Your task to perform on an android device: toggle translation in the chrome app Image 0: 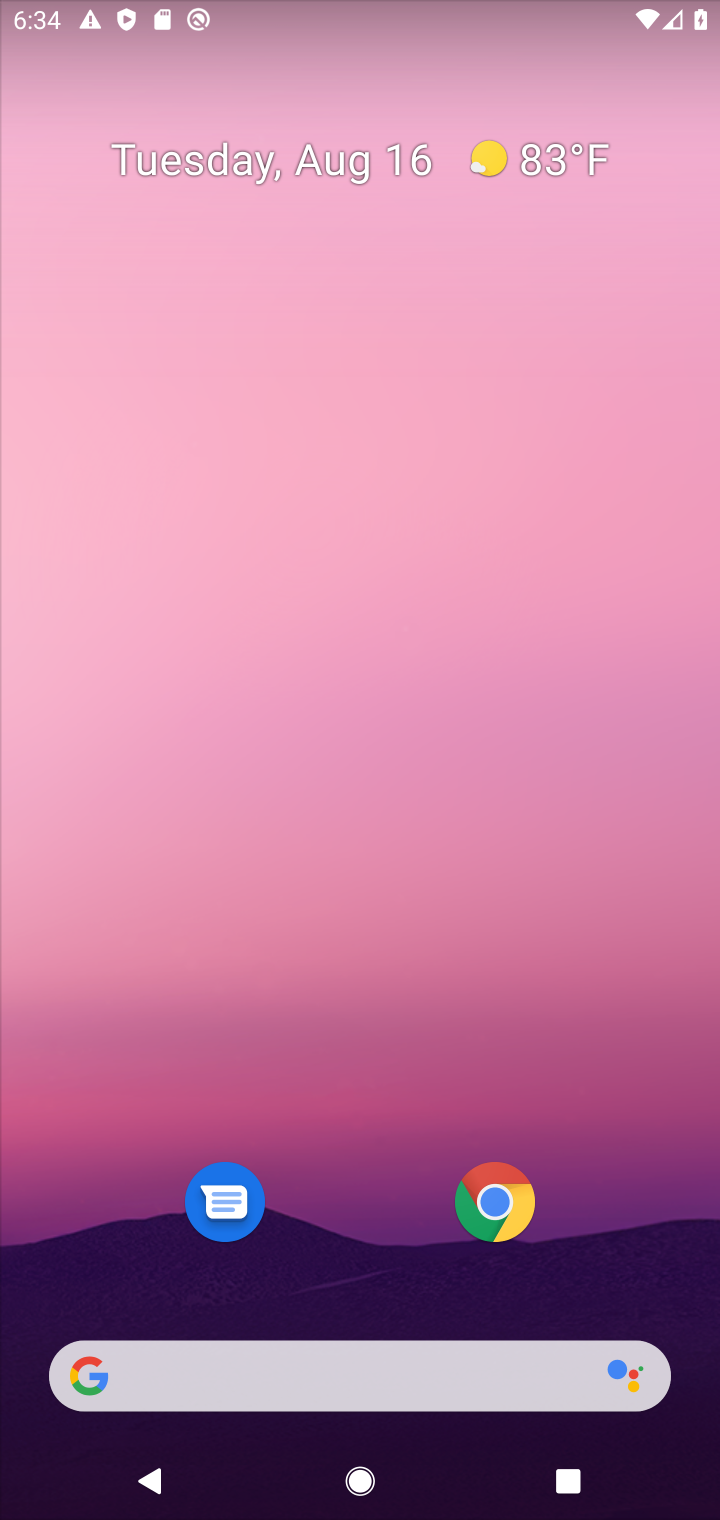
Step 0: drag from (663, 1277) to (321, 4)
Your task to perform on an android device: toggle translation in the chrome app Image 1: 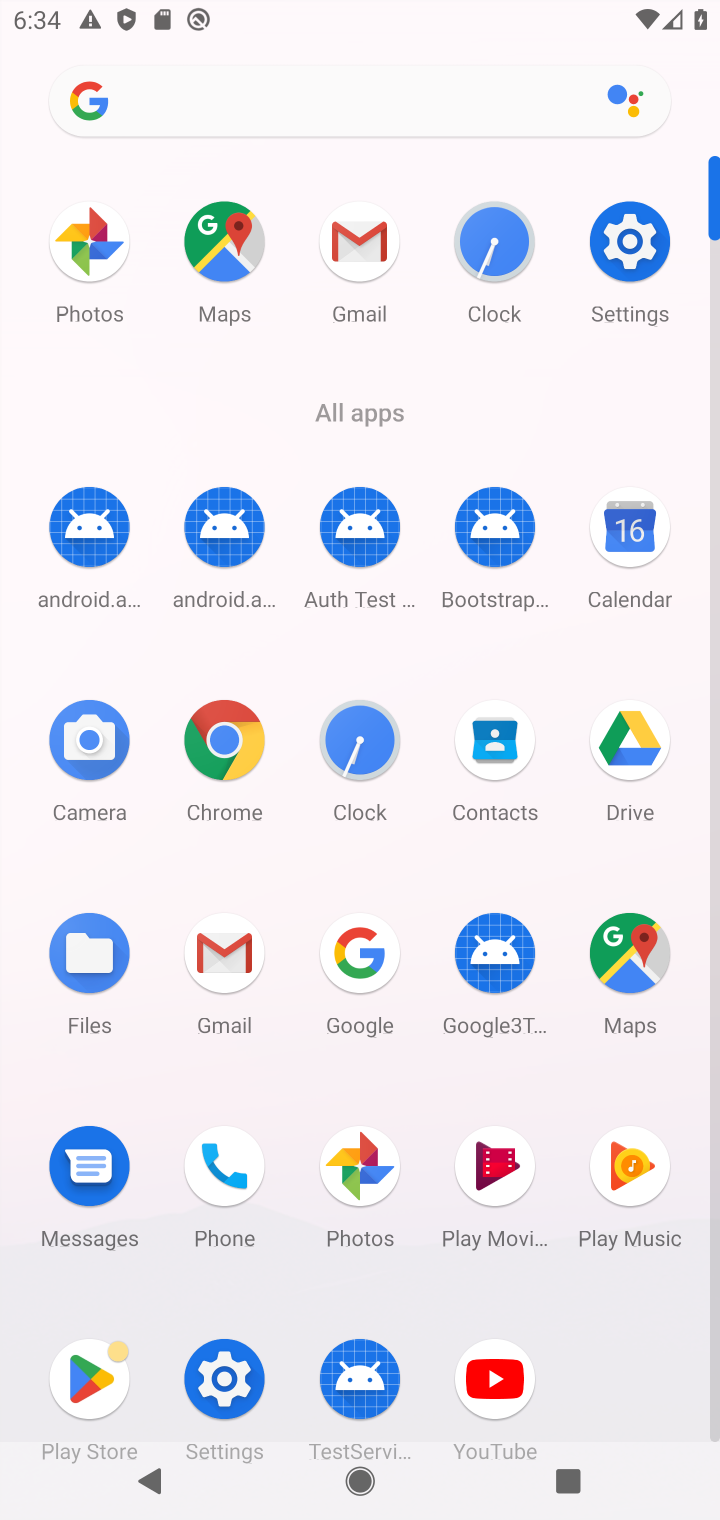
Step 1: click (210, 742)
Your task to perform on an android device: toggle translation in the chrome app Image 2: 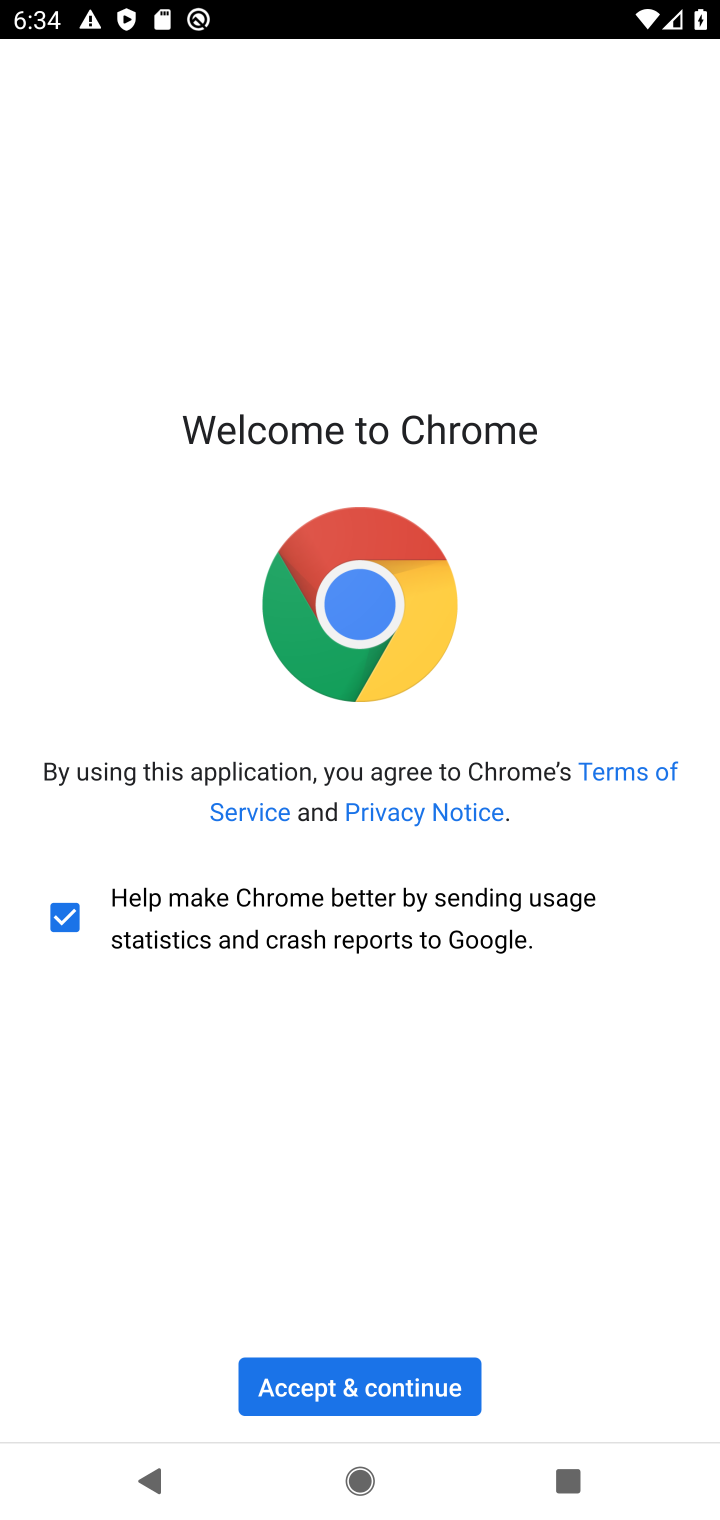
Step 2: click (419, 1386)
Your task to perform on an android device: toggle translation in the chrome app Image 3: 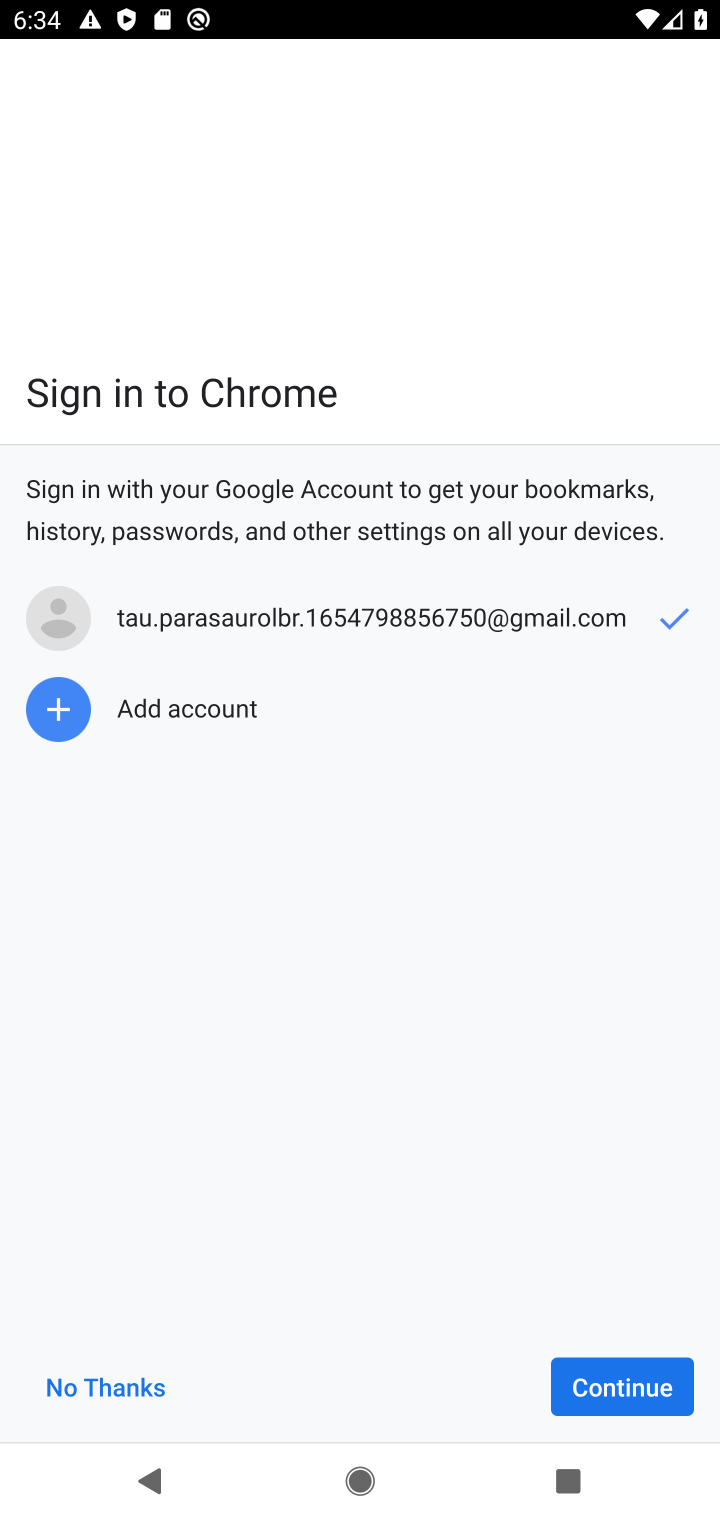
Step 3: click (619, 1379)
Your task to perform on an android device: toggle translation in the chrome app Image 4: 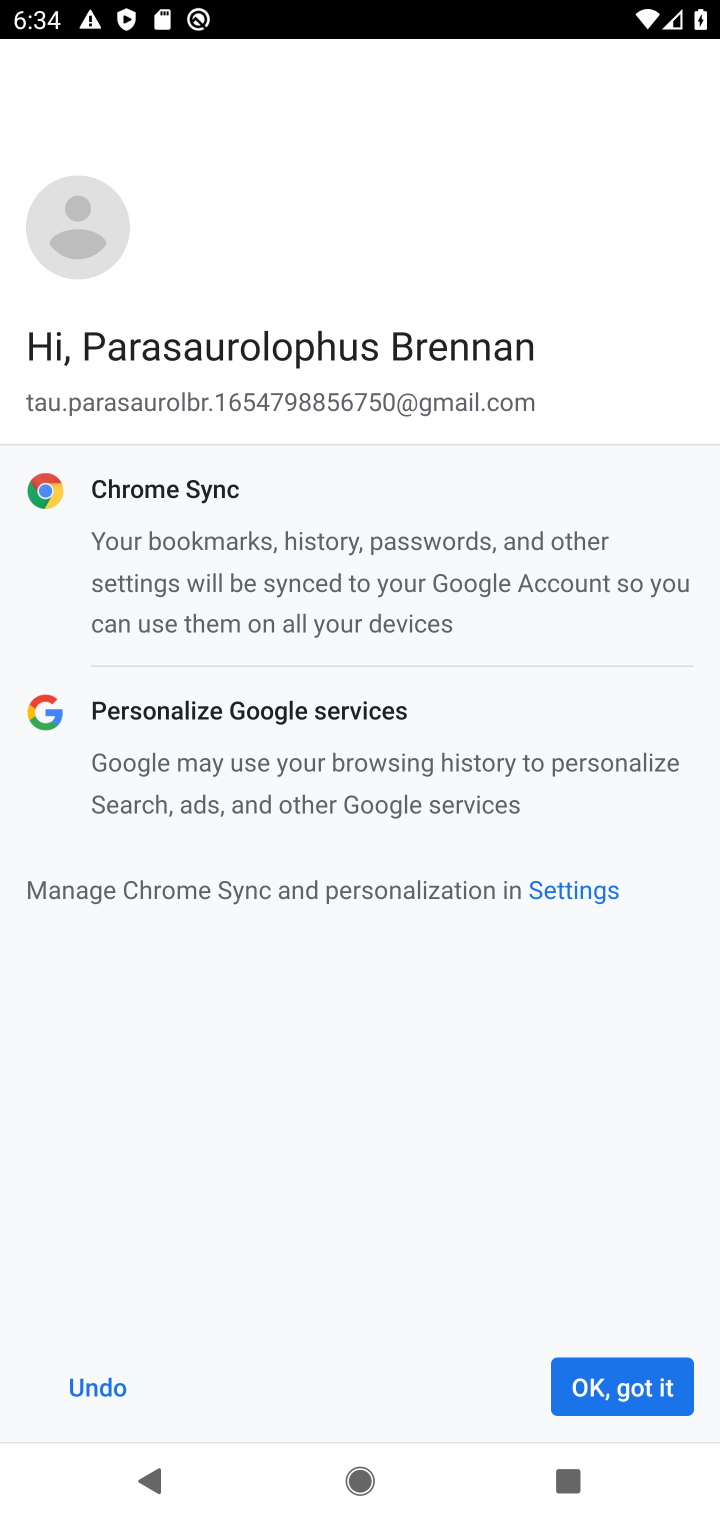
Step 4: click (619, 1379)
Your task to perform on an android device: toggle translation in the chrome app Image 5: 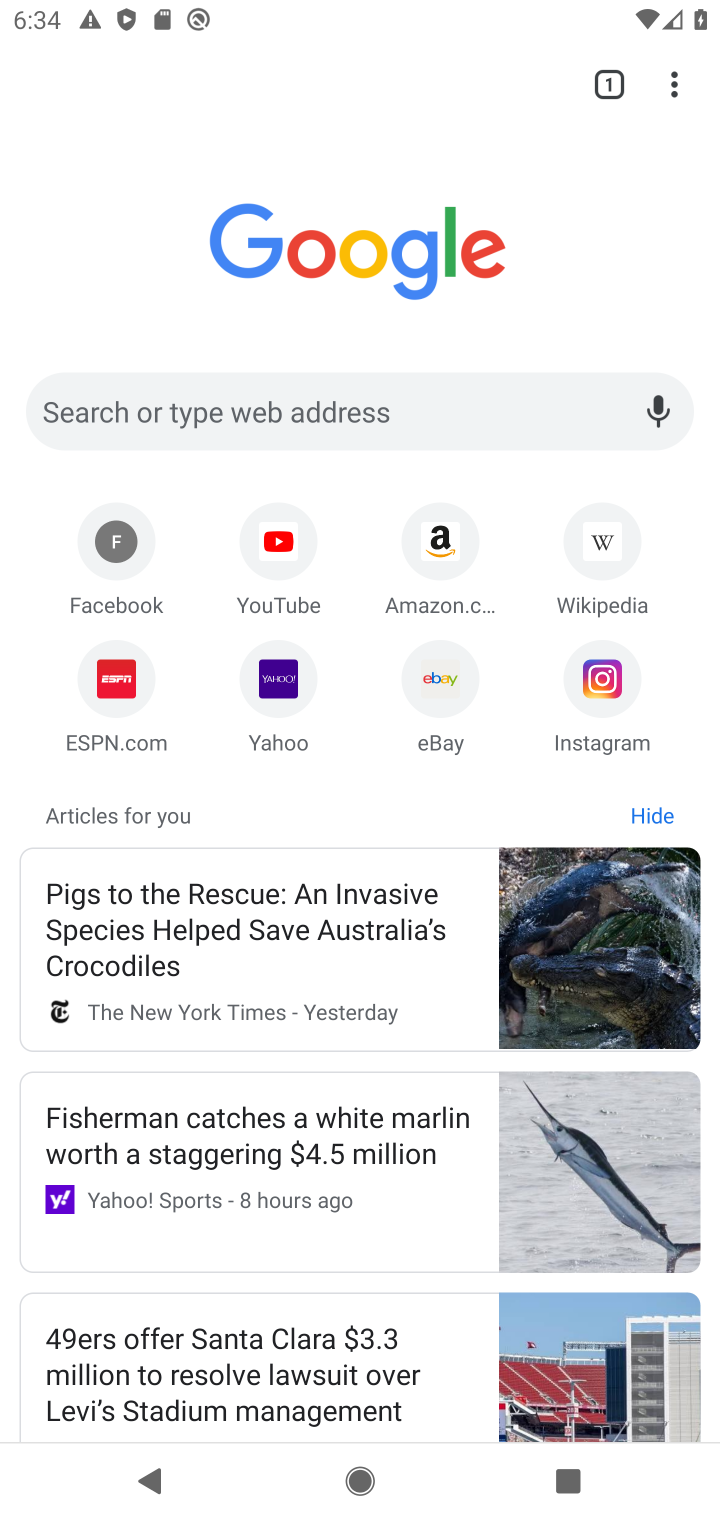
Step 5: click (674, 72)
Your task to perform on an android device: toggle translation in the chrome app Image 6: 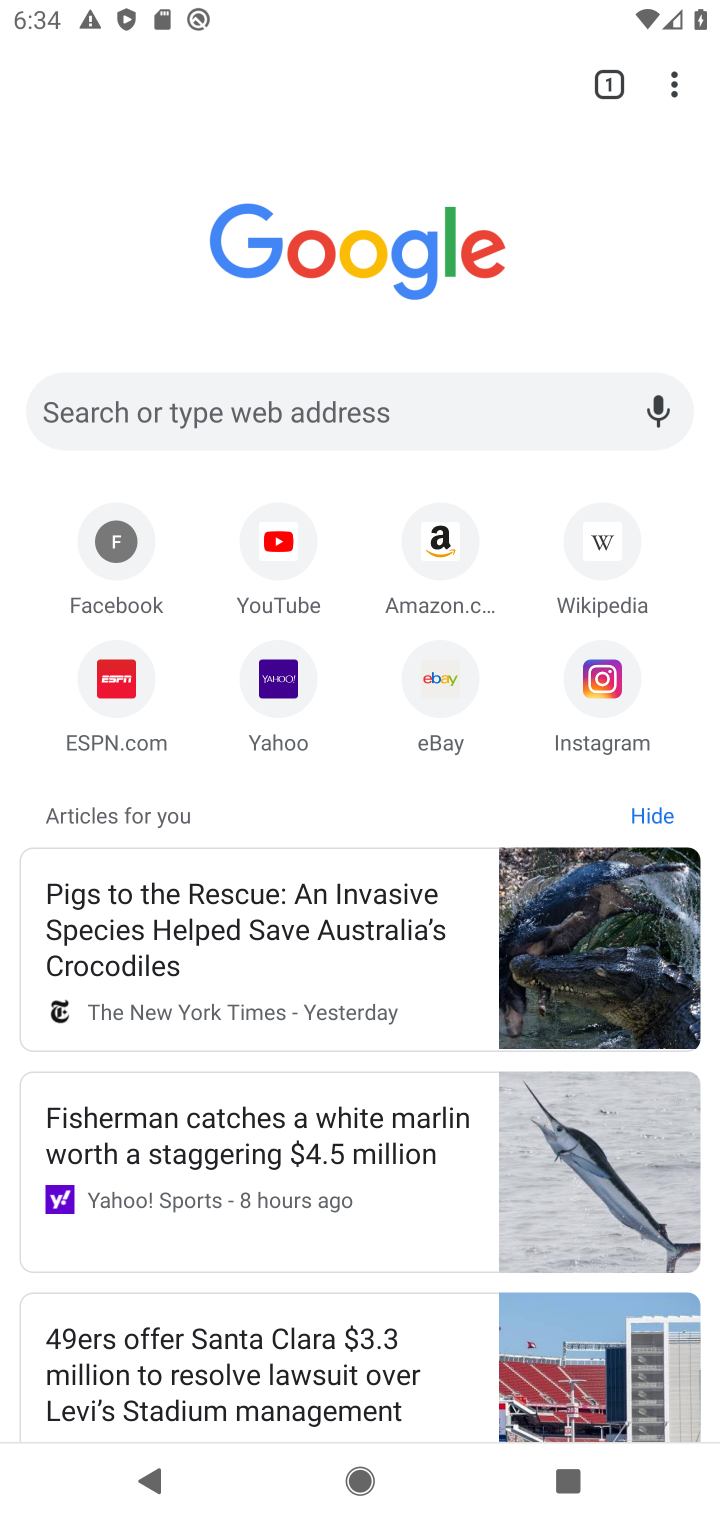
Step 6: click (680, 72)
Your task to perform on an android device: toggle translation in the chrome app Image 7: 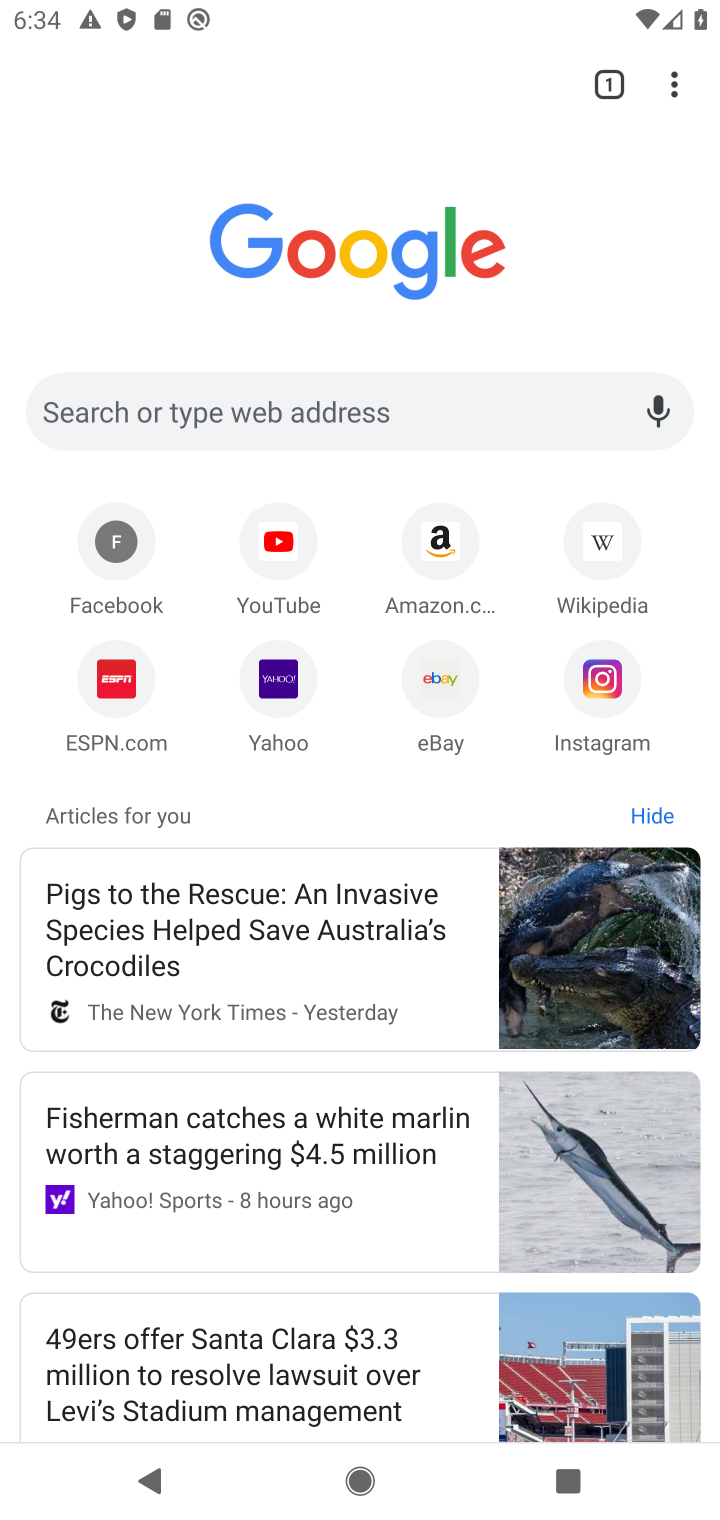
Step 7: click (671, 75)
Your task to perform on an android device: toggle translation in the chrome app Image 8: 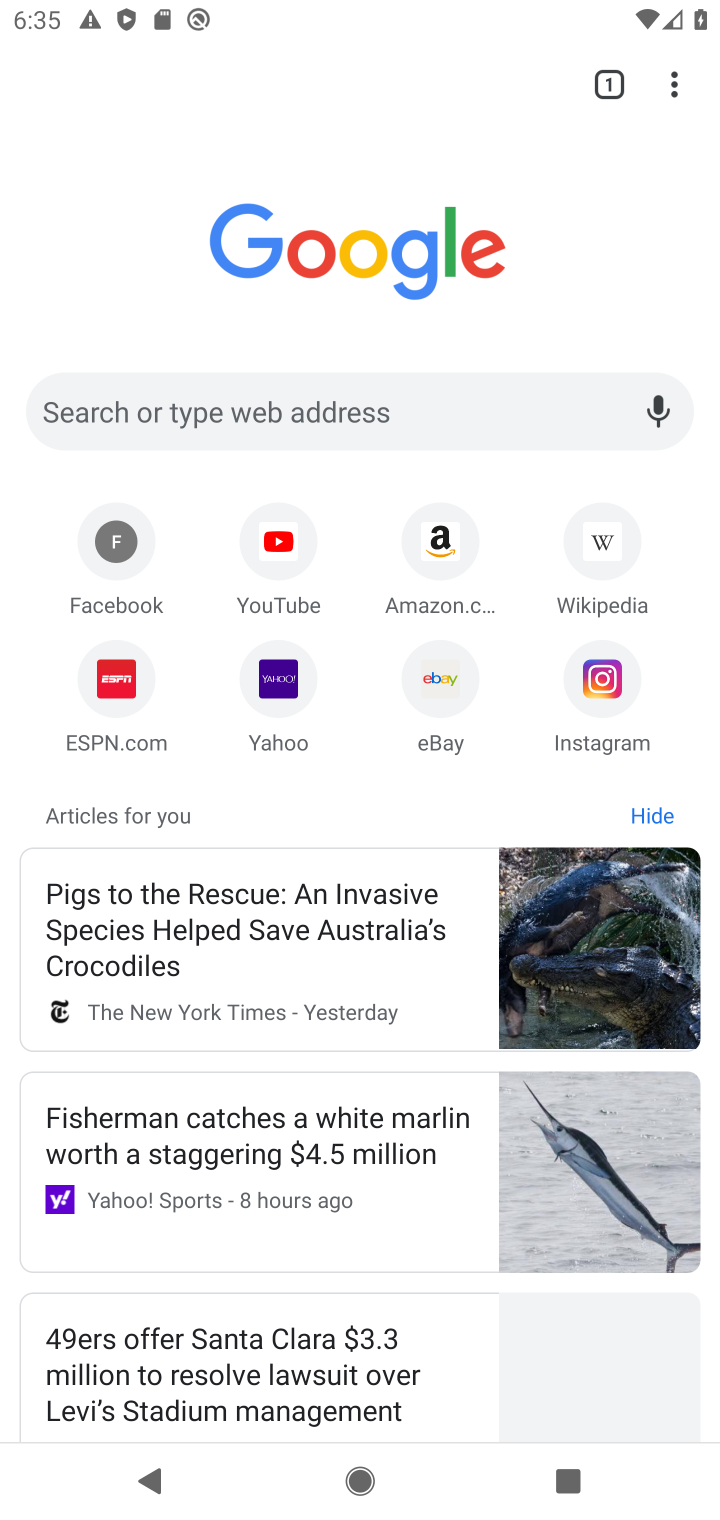
Step 8: click (671, 75)
Your task to perform on an android device: toggle translation in the chrome app Image 9: 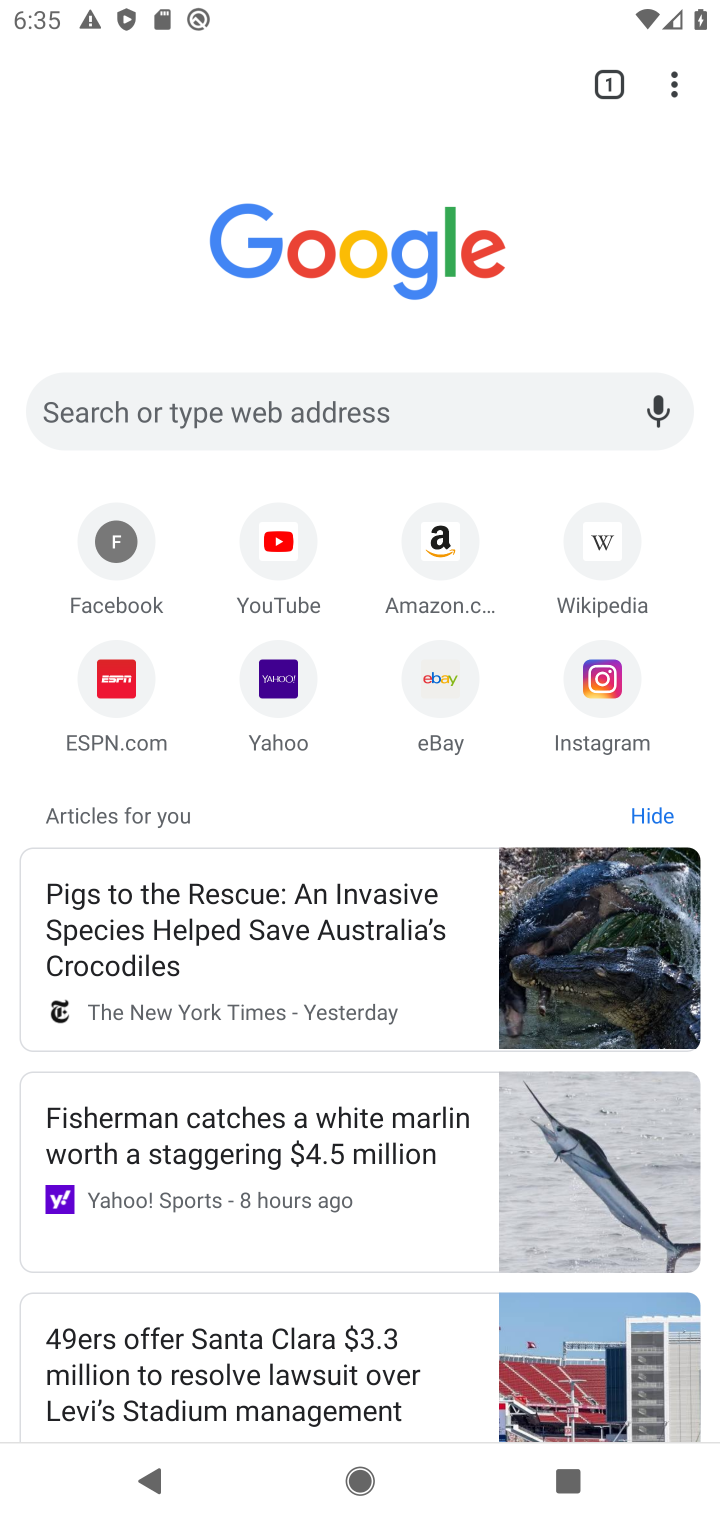
Step 9: click (664, 76)
Your task to perform on an android device: toggle translation in the chrome app Image 10: 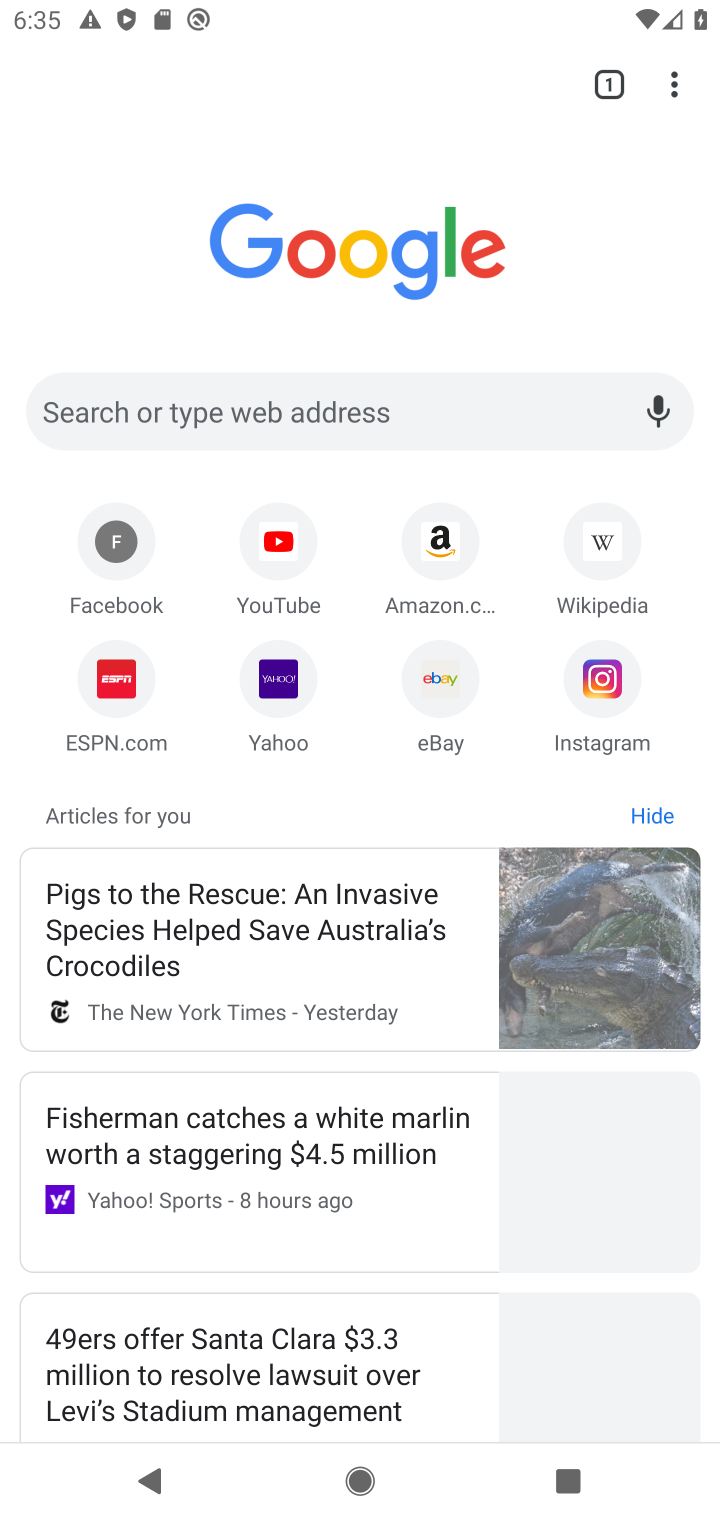
Step 10: click (666, 74)
Your task to perform on an android device: toggle translation in the chrome app Image 11: 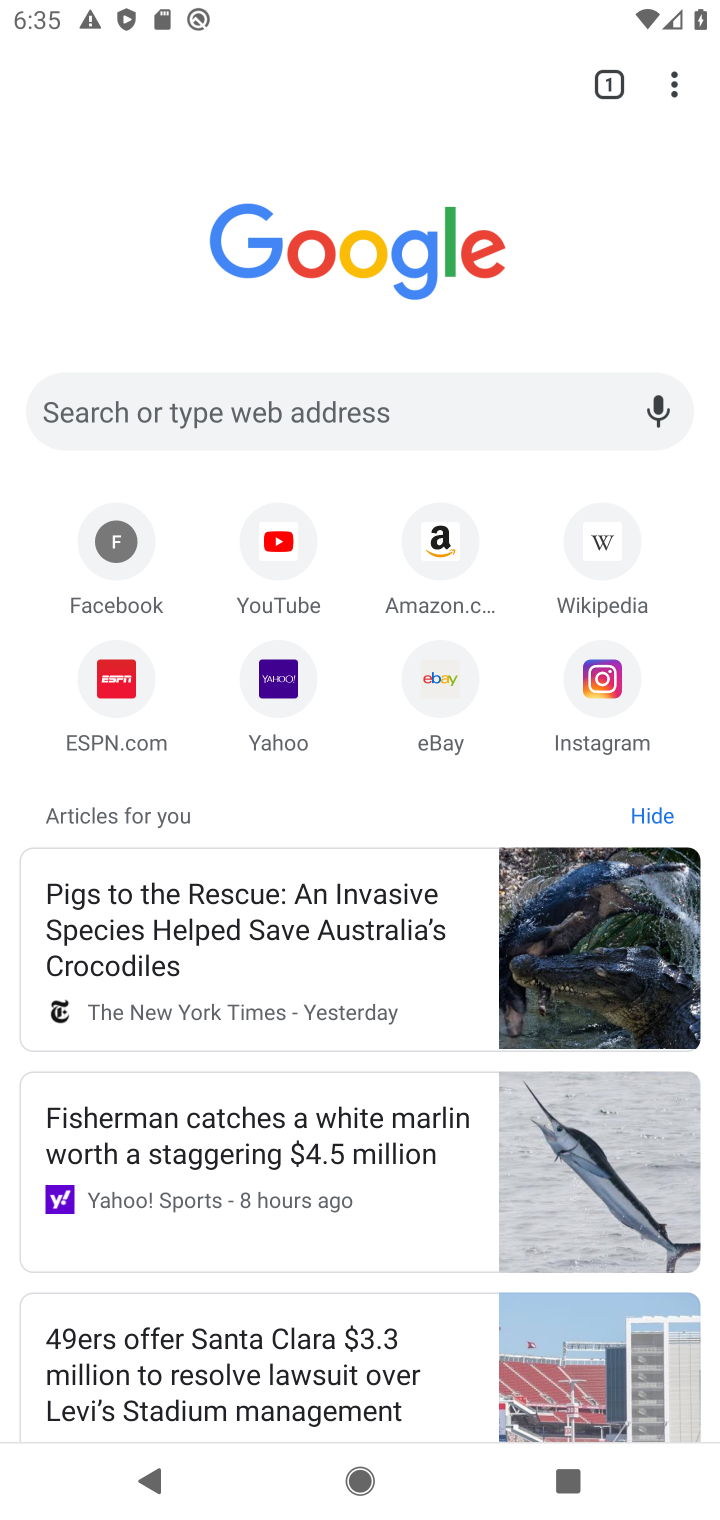
Step 11: click (683, 80)
Your task to perform on an android device: toggle translation in the chrome app Image 12: 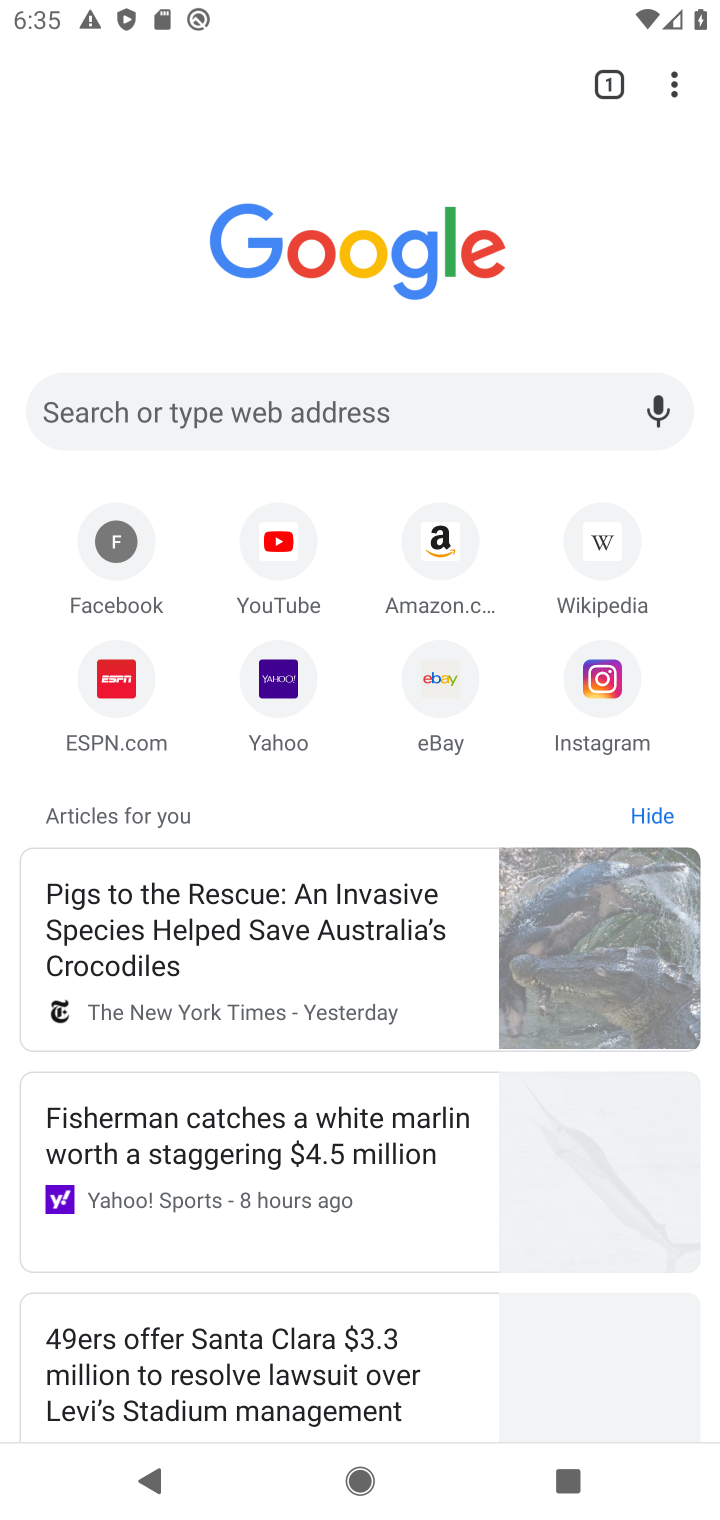
Step 12: click (683, 80)
Your task to perform on an android device: toggle translation in the chrome app Image 13: 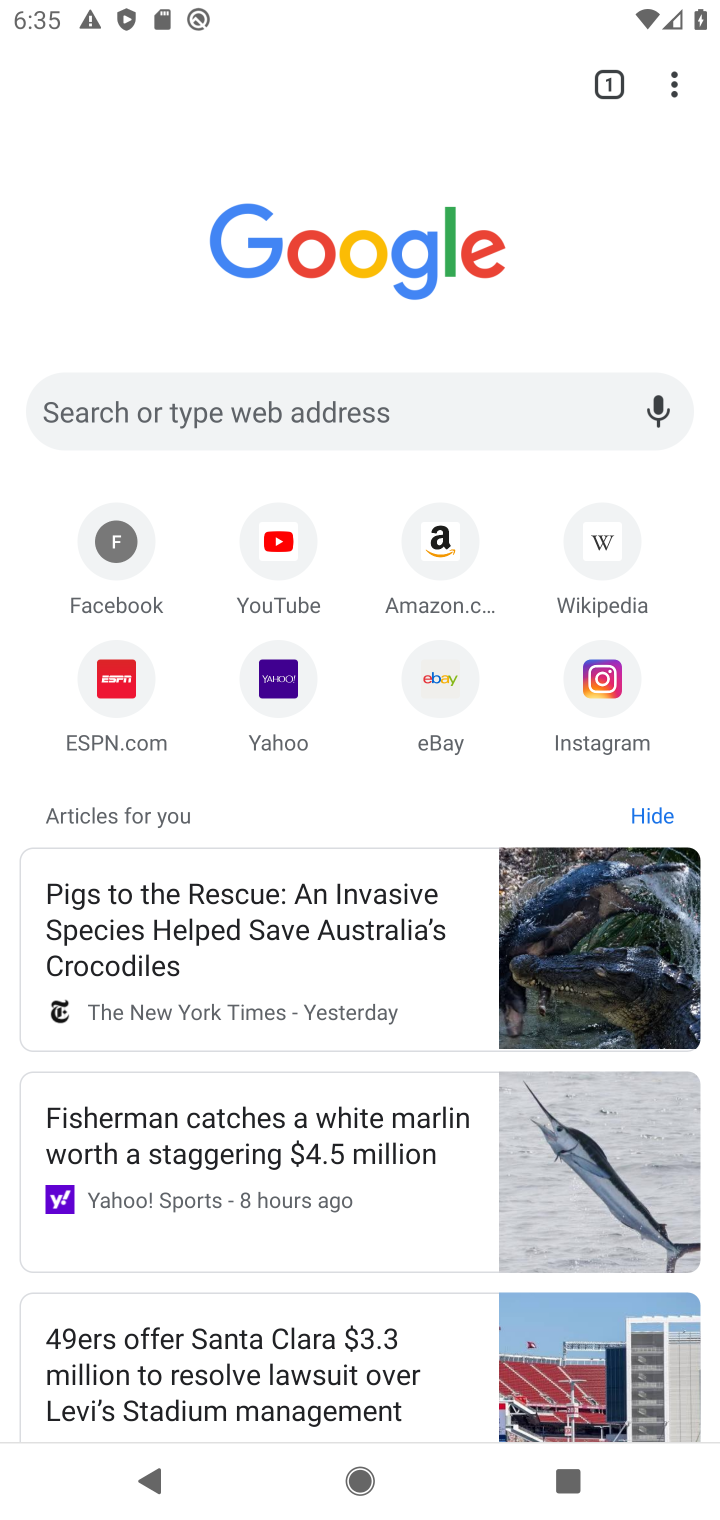
Step 13: click (666, 80)
Your task to perform on an android device: toggle translation in the chrome app Image 14: 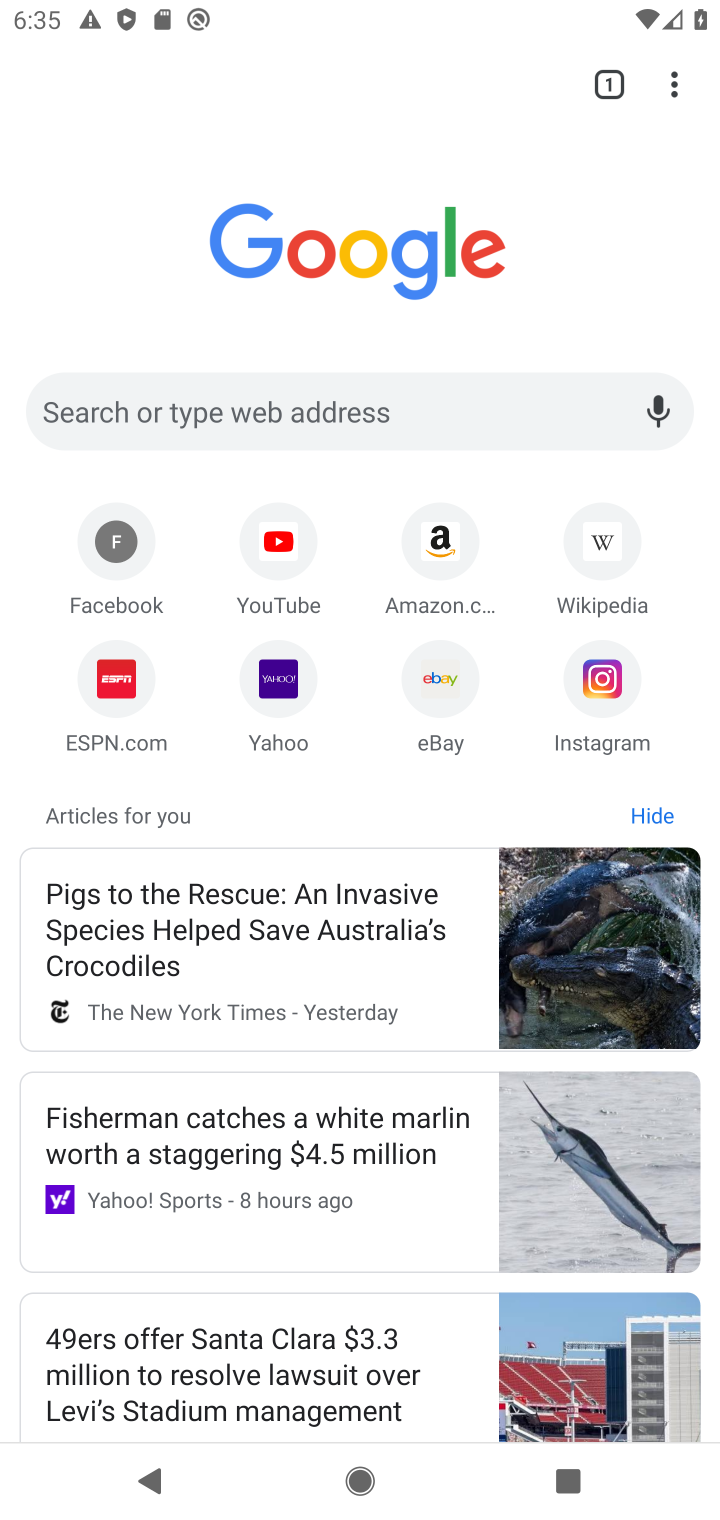
Step 14: click (685, 73)
Your task to perform on an android device: toggle translation in the chrome app Image 15: 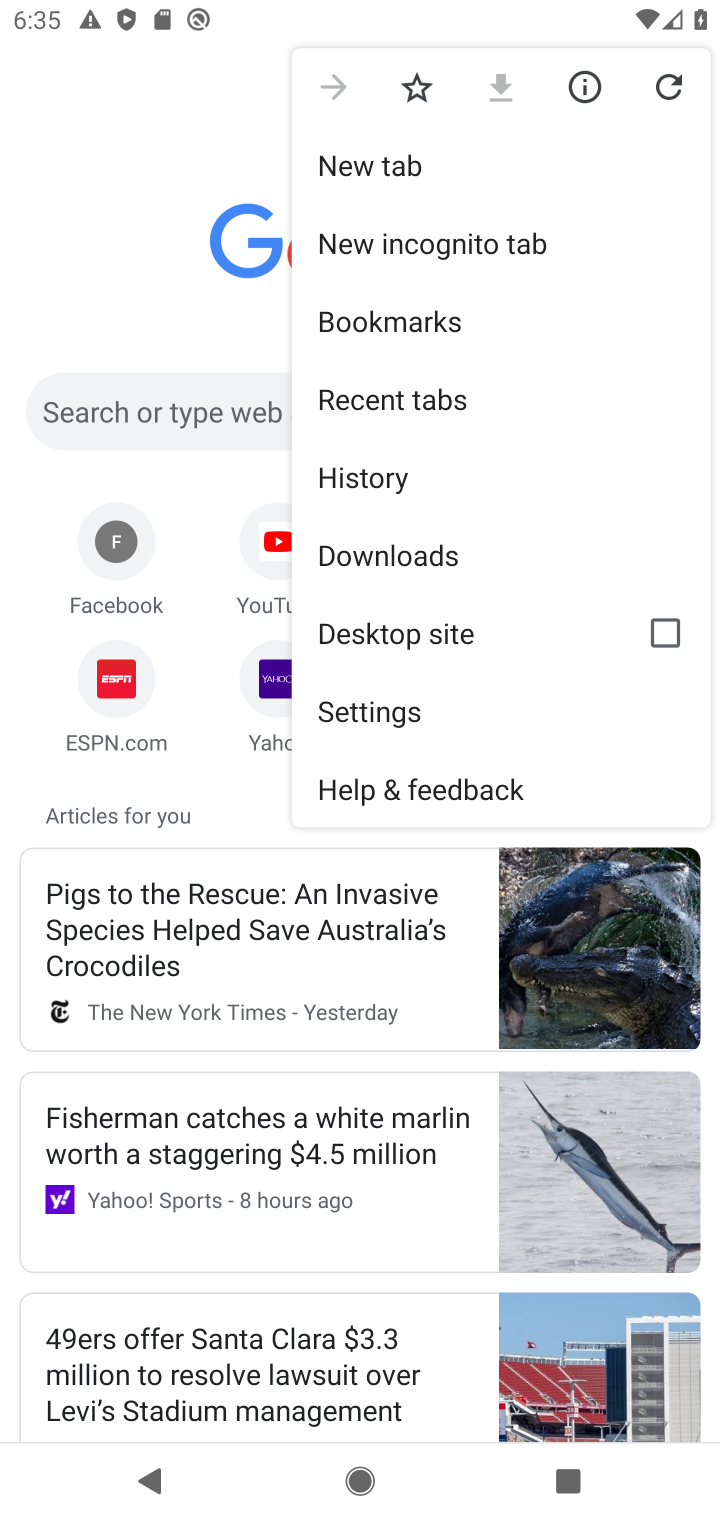
Step 15: click (392, 696)
Your task to perform on an android device: toggle translation in the chrome app Image 16: 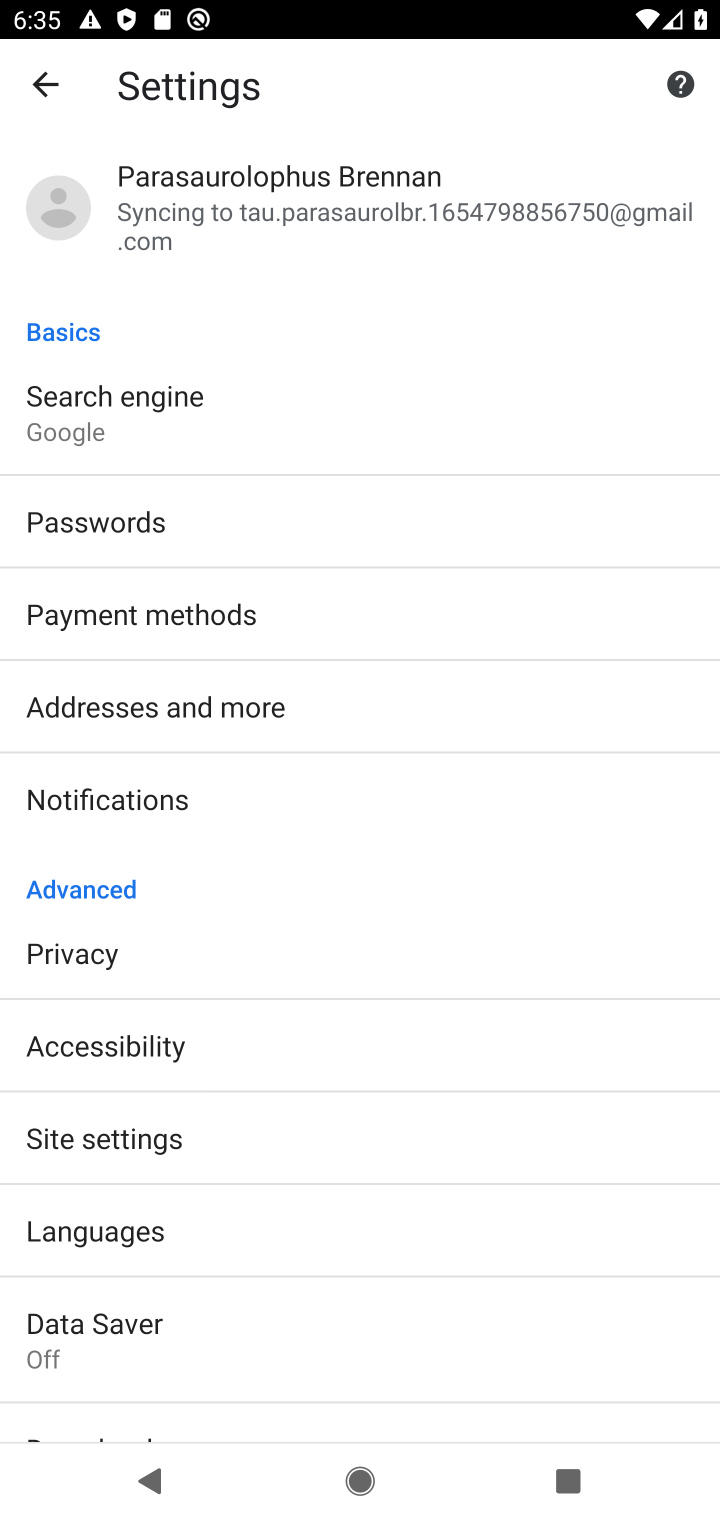
Step 16: click (169, 1226)
Your task to perform on an android device: toggle translation in the chrome app Image 17: 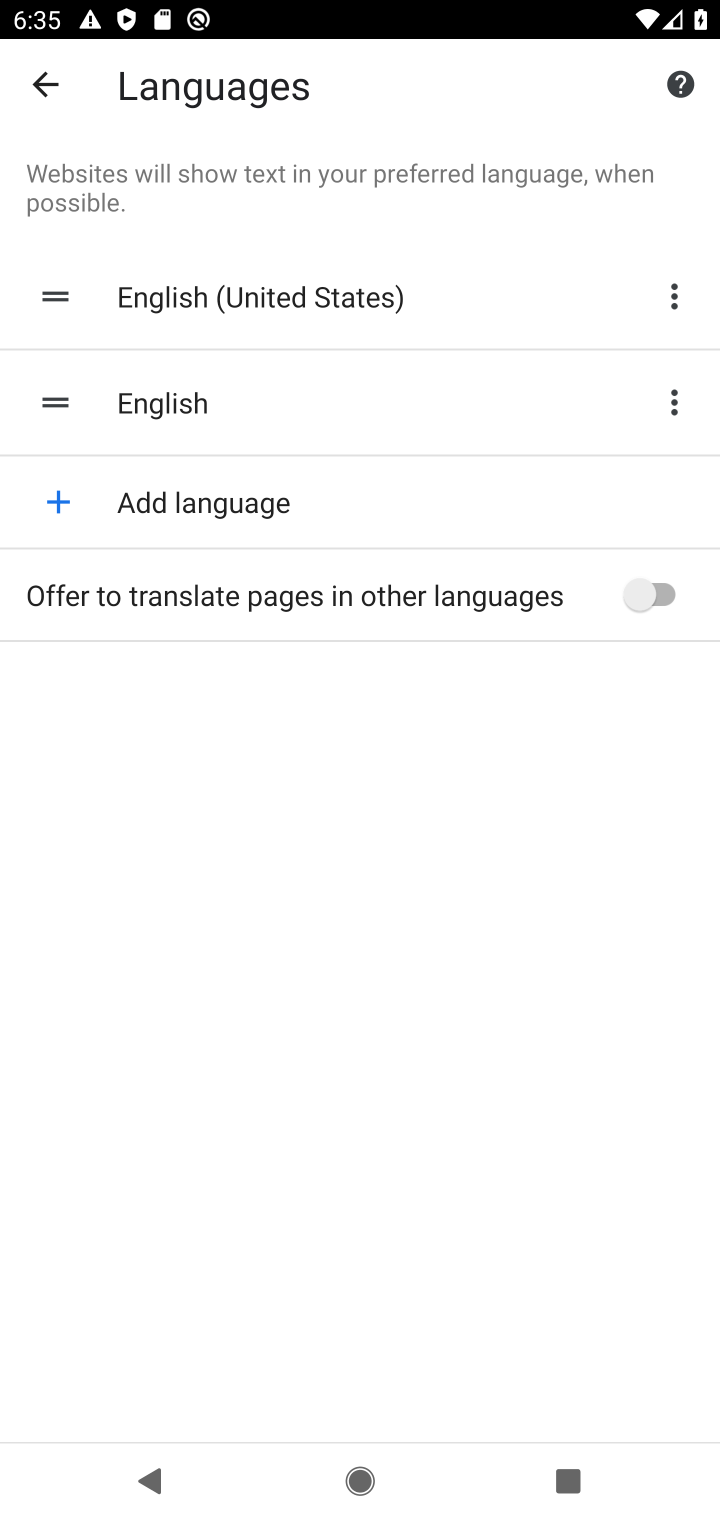
Step 17: click (658, 582)
Your task to perform on an android device: toggle translation in the chrome app Image 18: 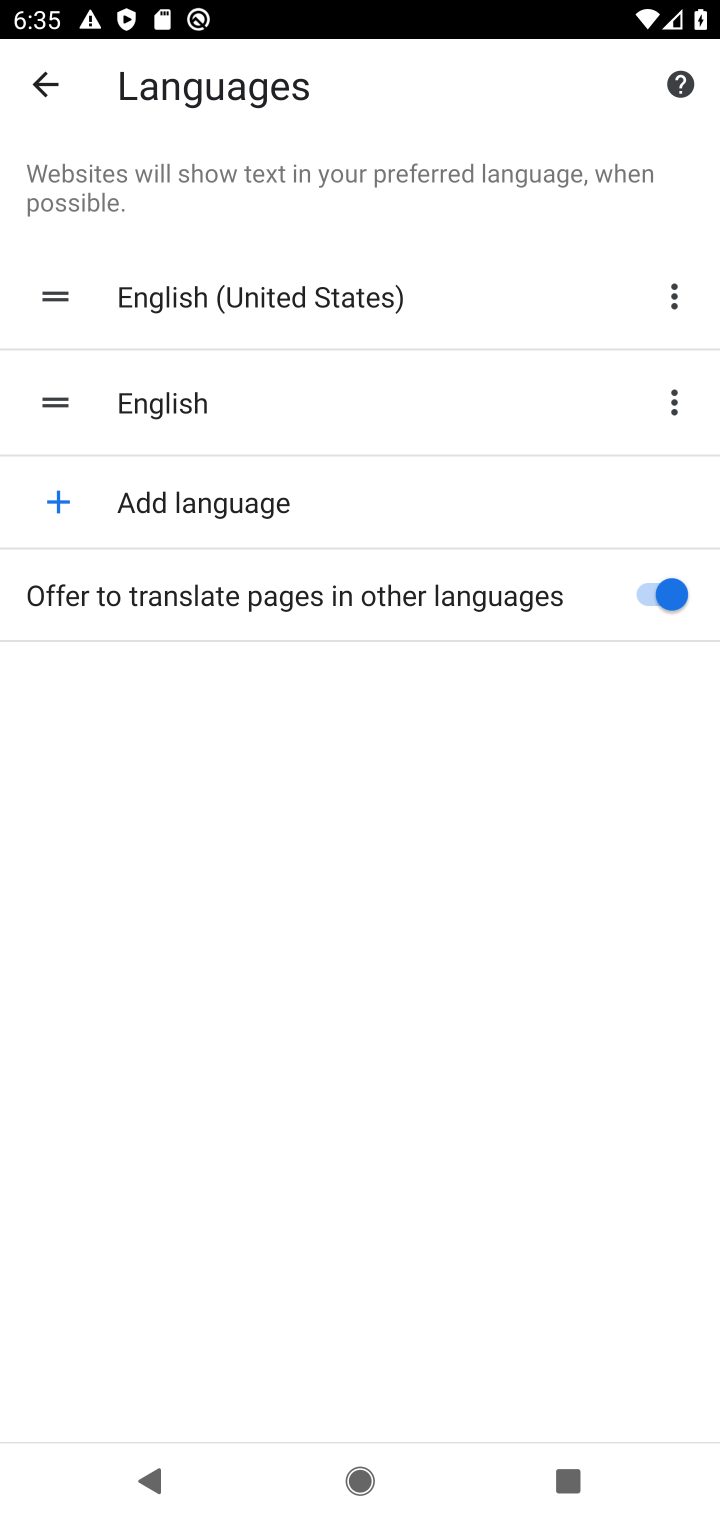
Step 18: task complete